Your task to perform on an android device: delete the emails in spam in the gmail app Image 0: 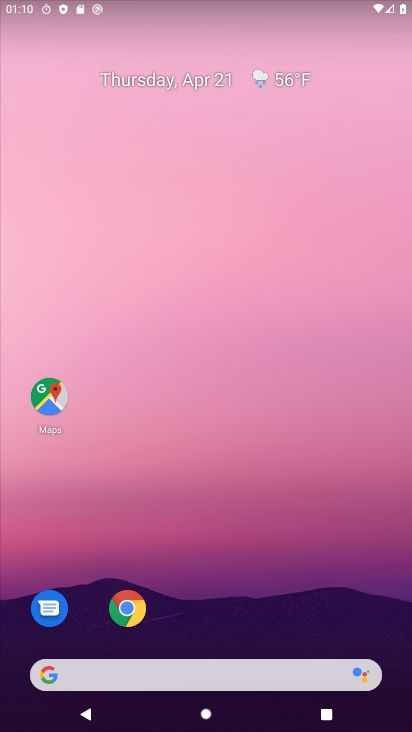
Step 0: drag from (268, 582) to (272, 96)
Your task to perform on an android device: delete the emails in spam in the gmail app Image 1: 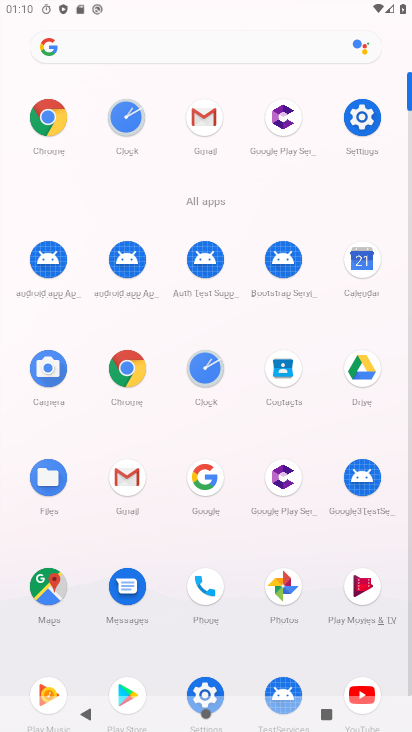
Step 1: click (208, 131)
Your task to perform on an android device: delete the emails in spam in the gmail app Image 2: 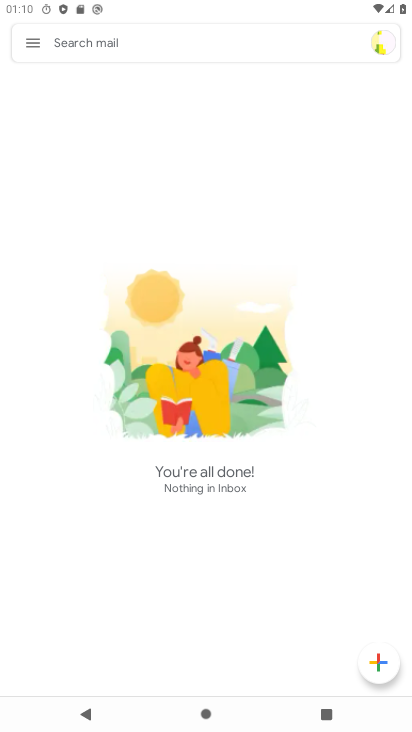
Step 2: click (32, 39)
Your task to perform on an android device: delete the emails in spam in the gmail app Image 3: 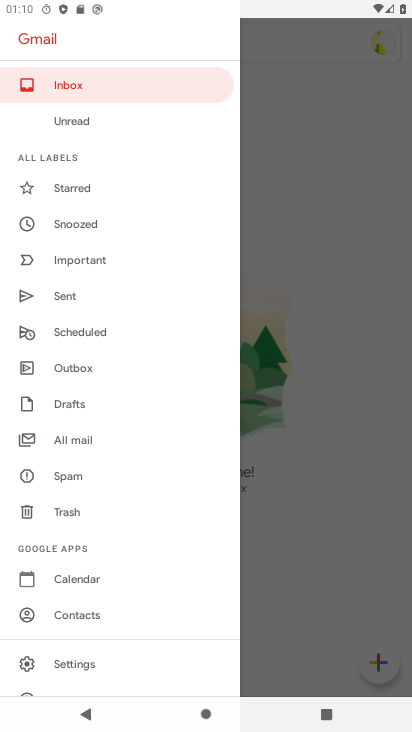
Step 3: click (71, 477)
Your task to perform on an android device: delete the emails in spam in the gmail app Image 4: 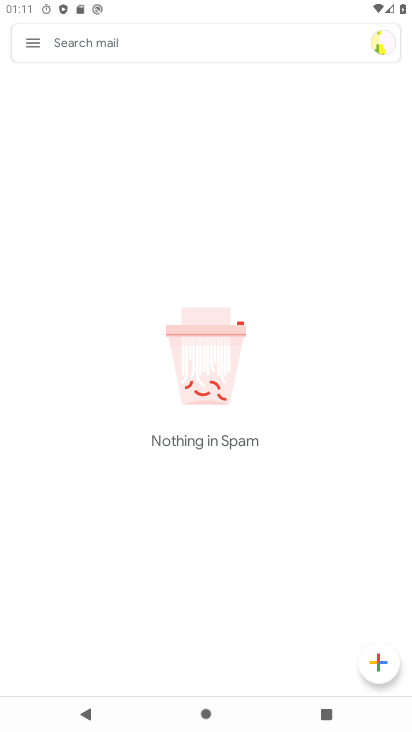
Step 4: task complete